Your task to perform on an android device: Open the web browser Image 0: 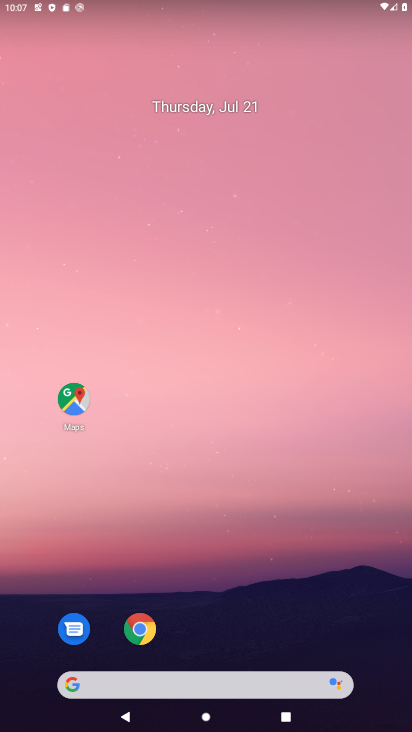
Step 0: click (124, 679)
Your task to perform on an android device: Open the web browser Image 1: 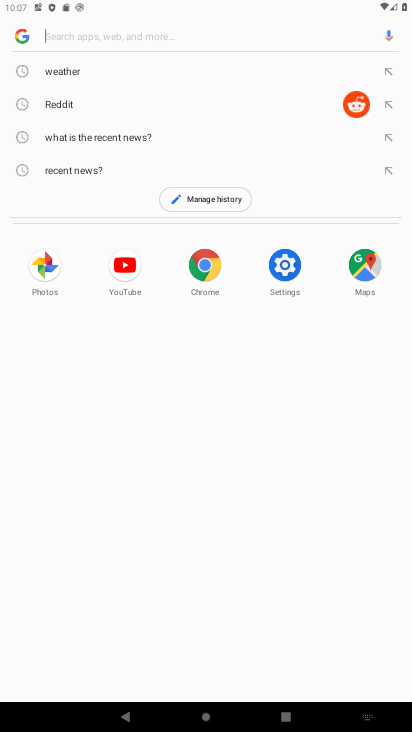
Step 1: task complete